Your task to perform on an android device: Open Amazon Image 0: 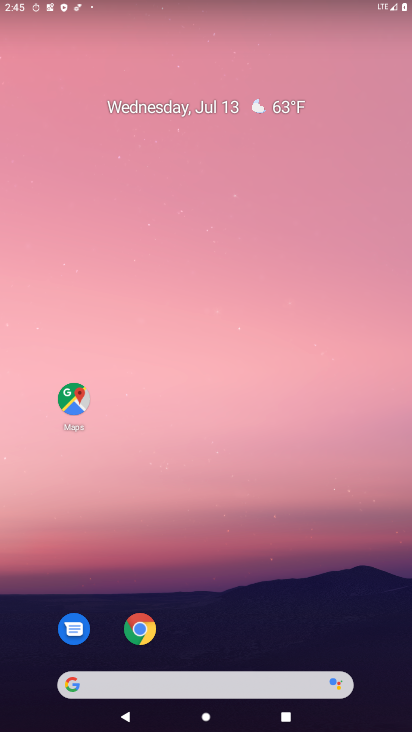
Step 0: drag from (180, 641) to (215, 310)
Your task to perform on an android device: Open Amazon Image 1: 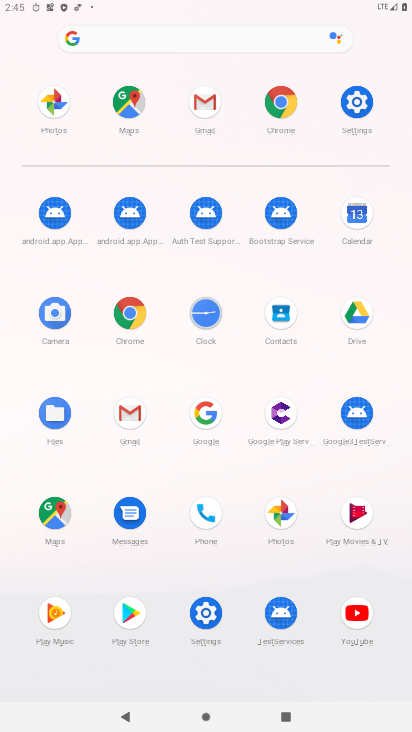
Step 1: click (127, 313)
Your task to perform on an android device: Open Amazon Image 2: 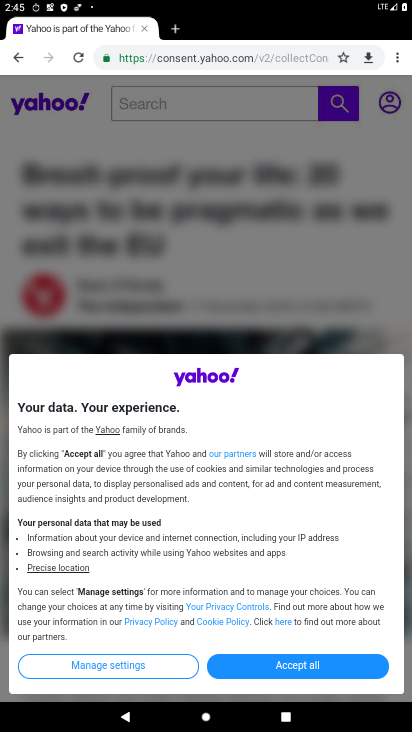
Step 2: click (282, 128)
Your task to perform on an android device: Open Amazon Image 3: 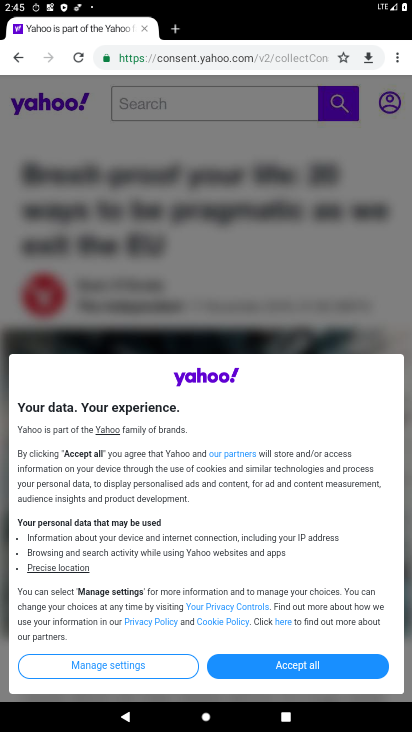
Step 3: click (175, 29)
Your task to perform on an android device: Open Amazon Image 4: 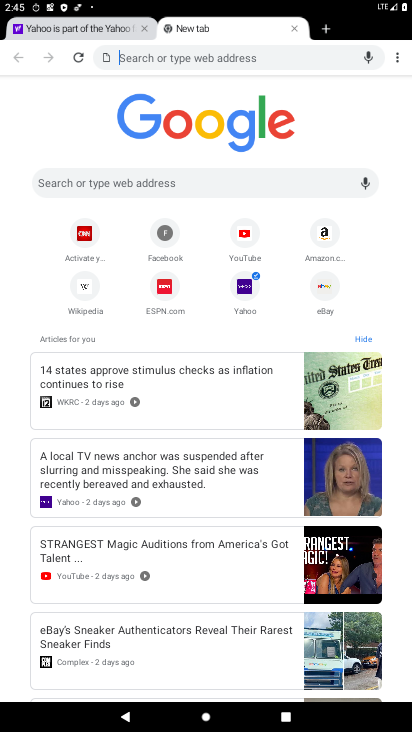
Step 4: click (145, 31)
Your task to perform on an android device: Open Amazon Image 5: 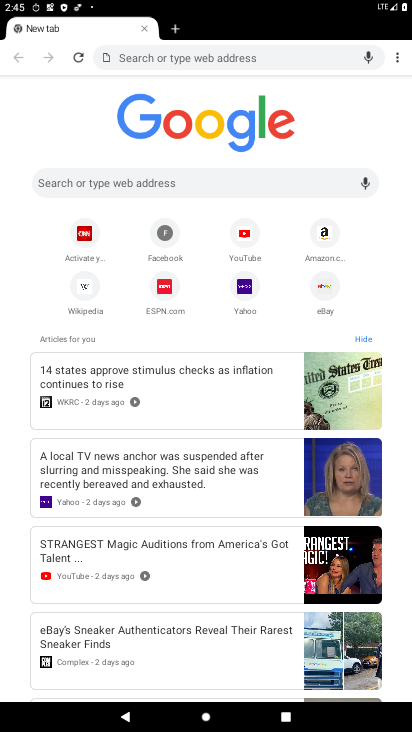
Step 5: click (319, 228)
Your task to perform on an android device: Open Amazon Image 6: 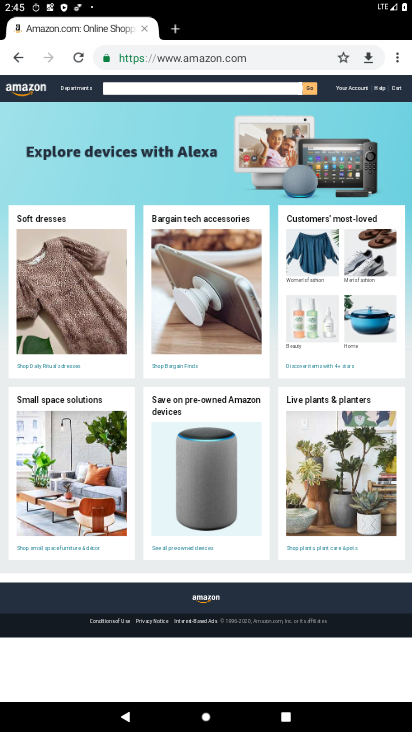
Step 6: task complete